Your task to perform on an android device: turn on notifications settings in the gmail app Image 0: 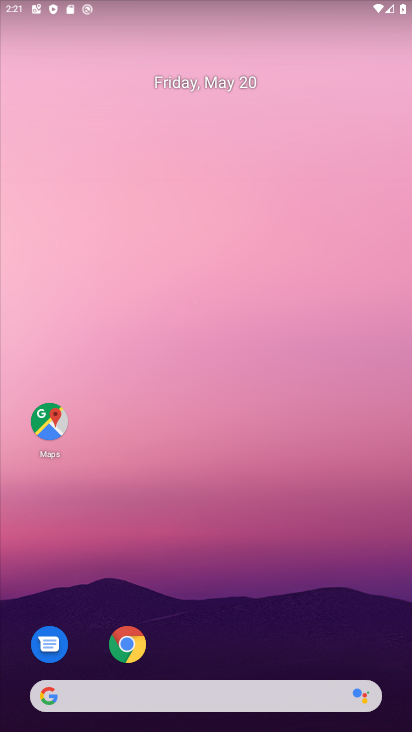
Step 0: drag from (345, 627) to (239, 112)
Your task to perform on an android device: turn on notifications settings in the gmail app Image 1: 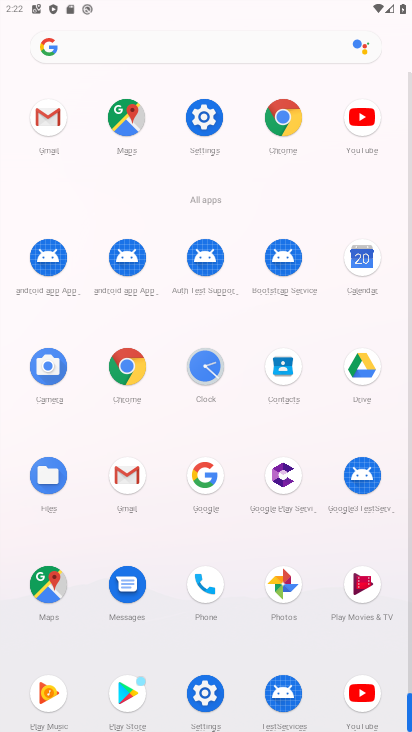
Step 1: click (130, 476)
Your task to perform on an android device: turn on notifications settings in the gmail app Image 2: 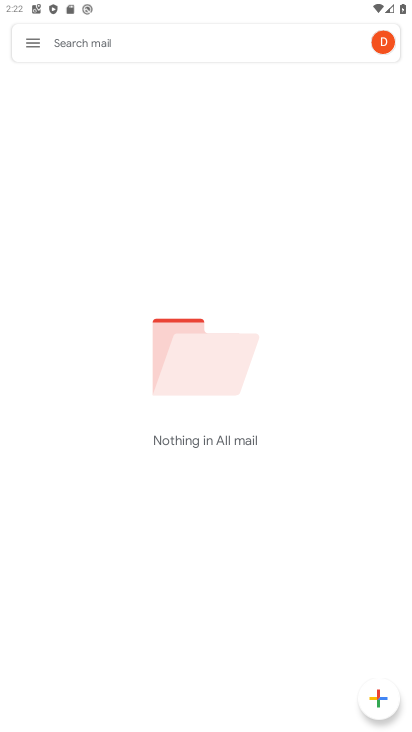
Step 2: click (23, 29)
Your task to perform on an android device: turn on notifications settings in the gmail app Image 3: 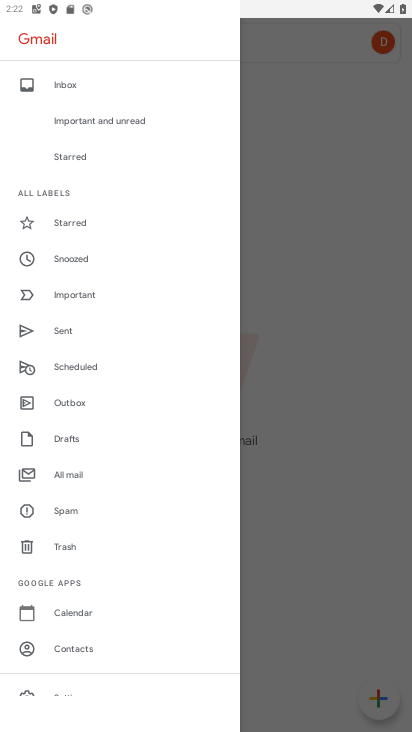
Step 3: drag from (142, 647) to (111, 411)
Your task to perform on an android device: turn on notifications settings in the gmail app Image 4: 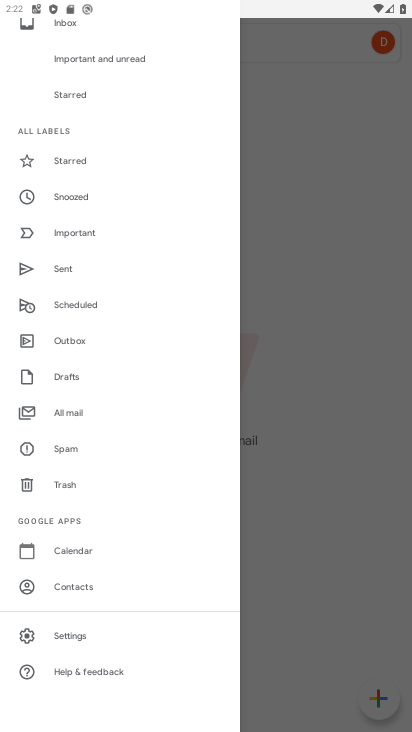
Step 4: click (74, 630)
Your task to perform on an android device: turn on notifications settings in the gmail app Image 5: 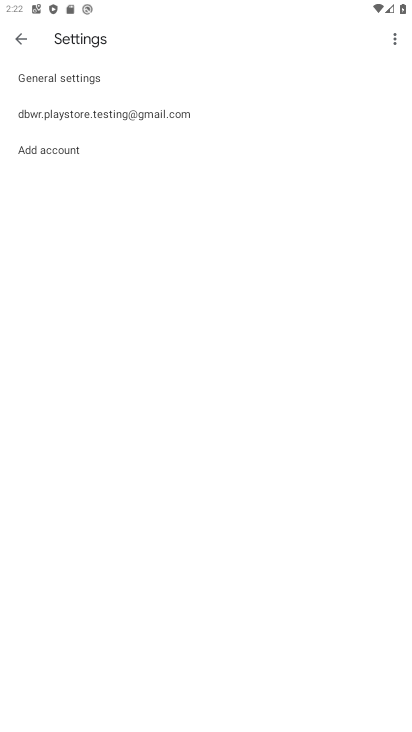
Step 5: click (91, 114)
Your task to perform on an android device: turn on notifications settings in the gmail app Image 6: 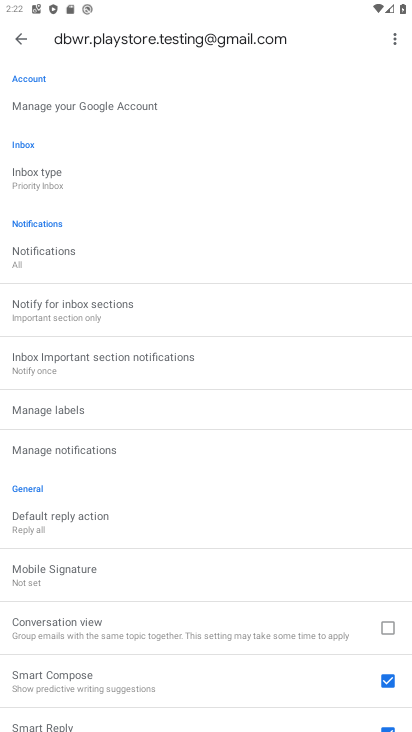
Step 6: click (102, 449)
Your task to perform on an android device: turn on notifications settings in the gmail app Image 7: 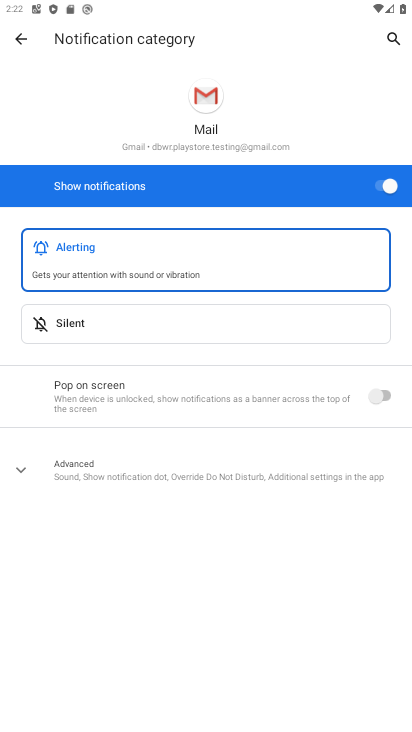
Step 7: task complete